Your task to perform on an android device: check google app version Image 0: 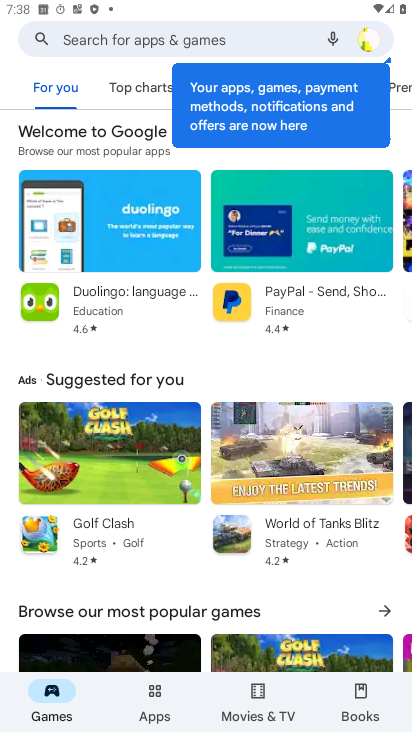
Step 0: press home button
Your task to perform on an android device: check google app version Image 1: 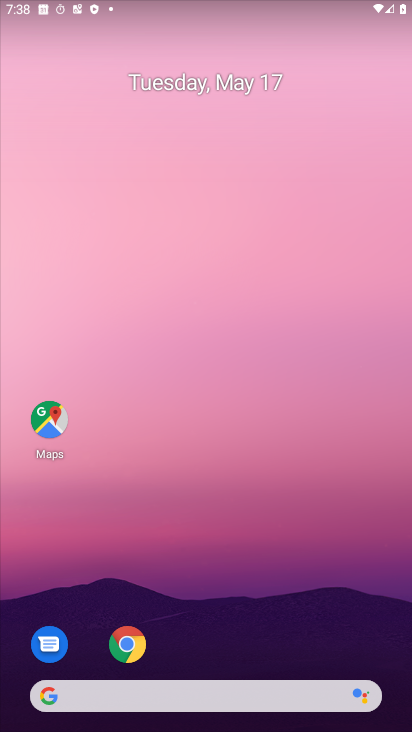
Step 1: drag from (265, 657) to (339, 30)
Your task to perform on an android device: check google app version Image 2: 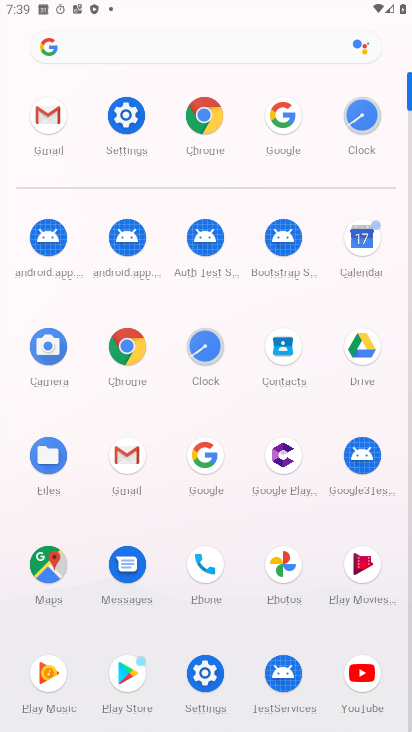
Step 2: click (191, 474)
Your task to perform on an android device: check google app version Image 3: 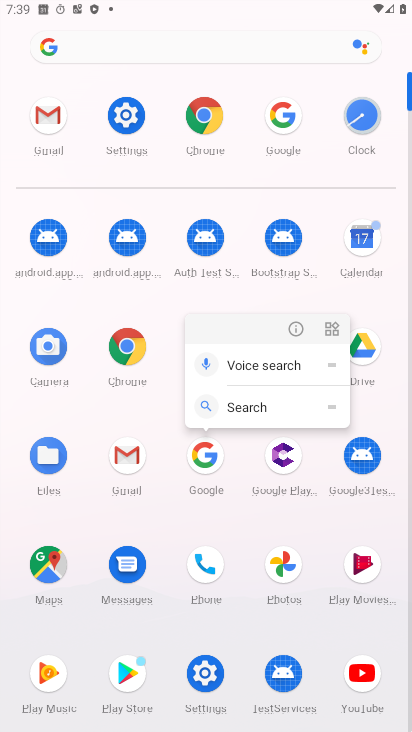
Step 3: click (289, 326)
Your task to perform on an android device: check google app version Image 4: 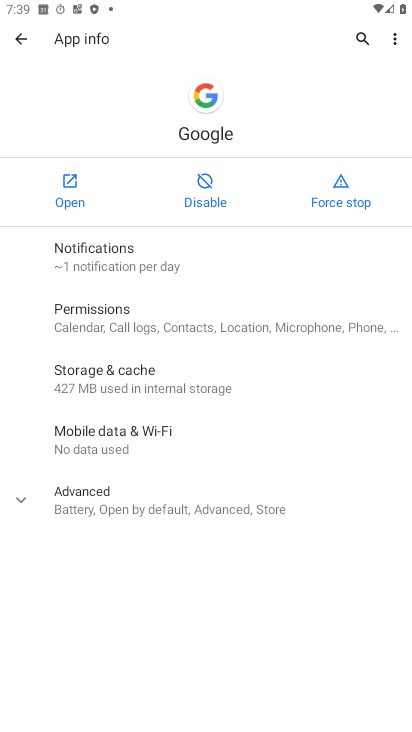
Step 4: click (62, 504)
Your task to perform on an android device: check google app version Image 5: 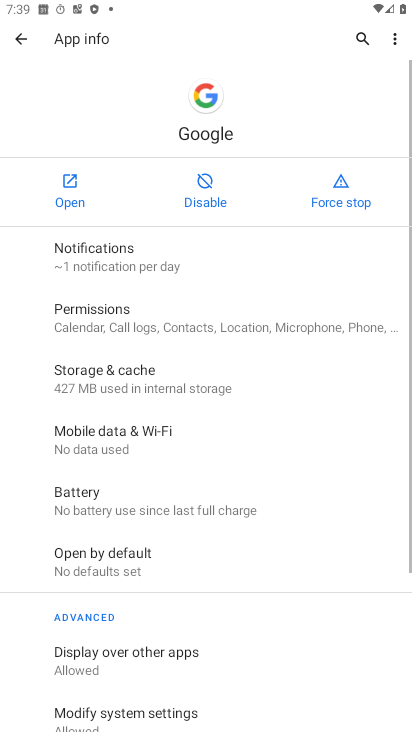
Step 5: task complete